Your task to perform on an android device: What's the weather going to be tomorrow? Image 0: 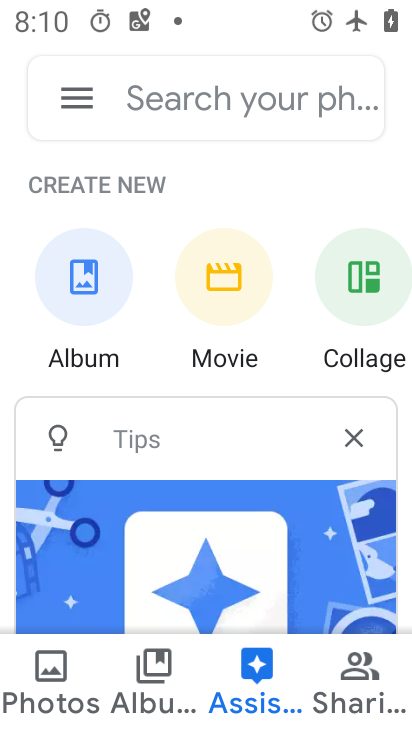
Step 0: press home button
Your task to perform on an android device: What's the weather going to be tomorrow? Image 1: 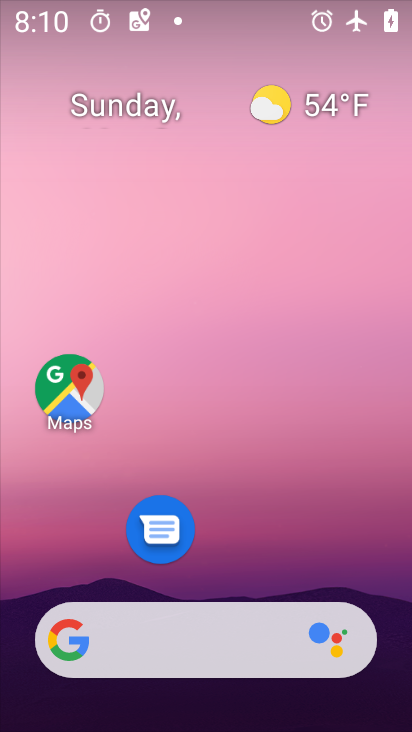
Step 1: click (334, 104)
Your task to perform on an android device: What's the weather going to be tomorrow? Image 2: 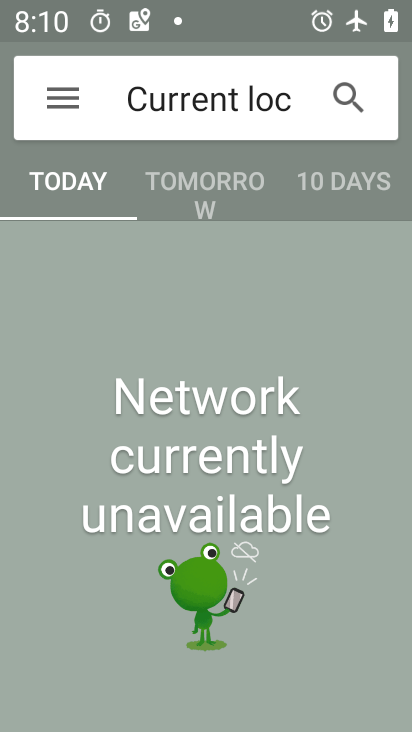
Step 2: click (243, 206)
Your task to perform on an android device: What's the weather going to be tomorrow? Image 3: 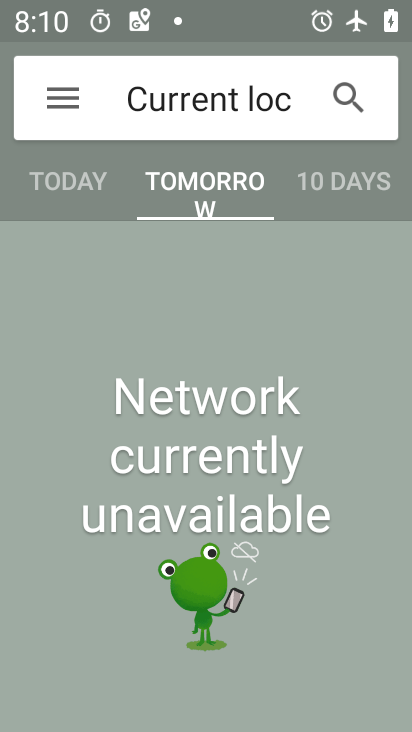
Step 3: task complete